Your task to perform on an android device: Open Google Chrome and open the bookmarks view Image 0: 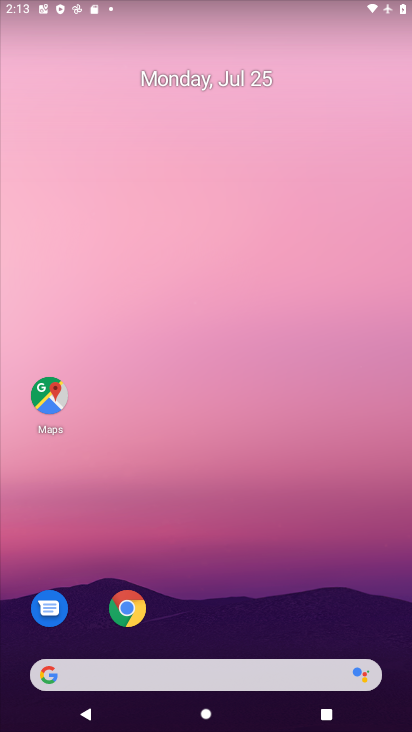
Step 0: drag from (231, 603) to (267, 390)
Your task to perform on an android device: Open Google Chrome and open the bookmarks view Image 1: 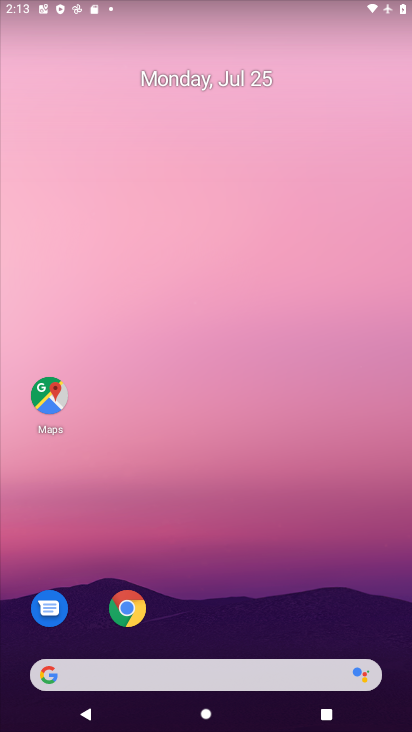
Step 1: drag from (235, 456) to (259, 168)
Your task to perform on an android device: Open Google Chrome and open the bookmarks view Image 2: 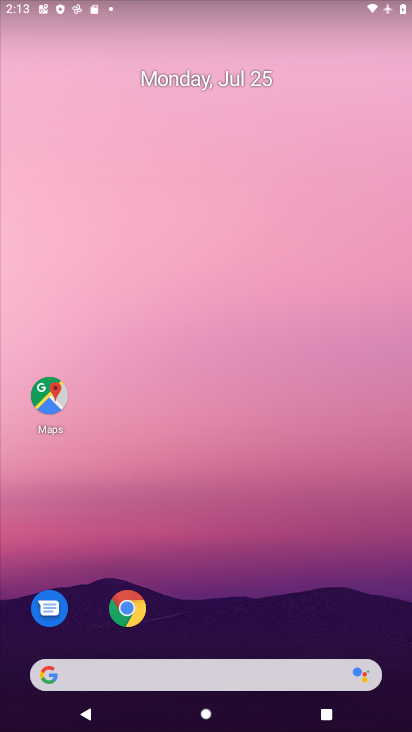
Step 2: drag from (243, 642) to (395, 123)
Your task to perform on an android device: Open Google Chrome and open the bookmarks view Image 3: 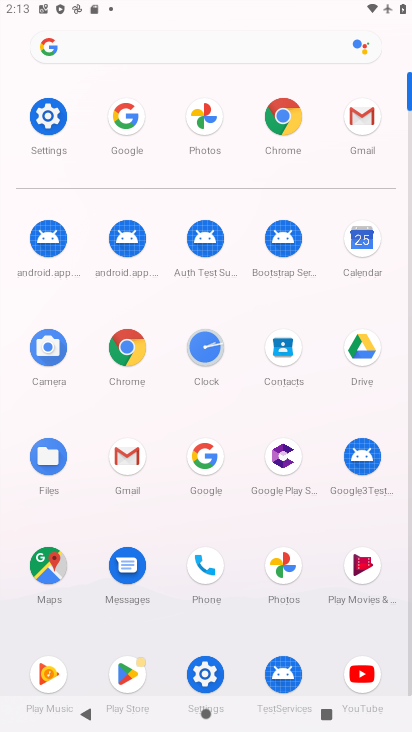
Step 3: click (127, 358)
Your task to perform on an android device: Open Google Chrome and open the bookmarks view Image 4: 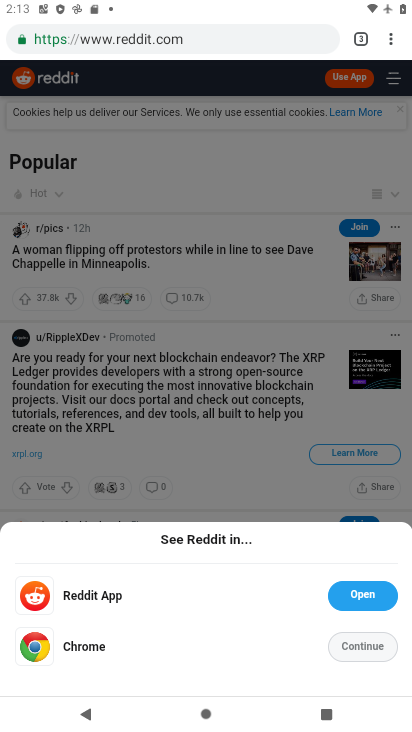
Step 4: click (388, 39)
Your task to perform on an android device: Open Google Chrome and open the bookmarks view Image 5: 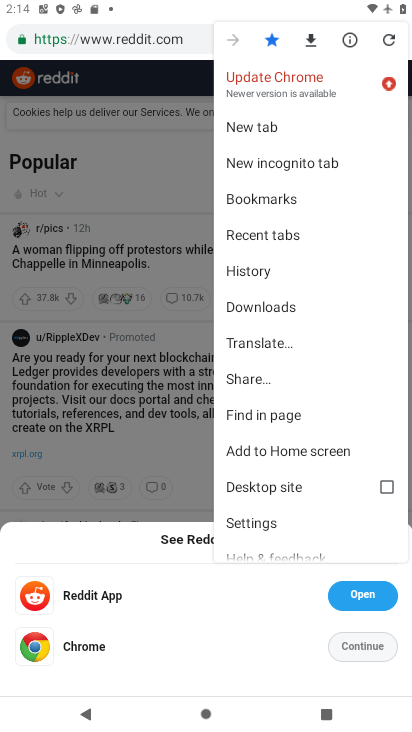
Step 5: click (284, 198)
Your task to perform on an android device: Open Google Chrome and open the bookmarks view Image 6: 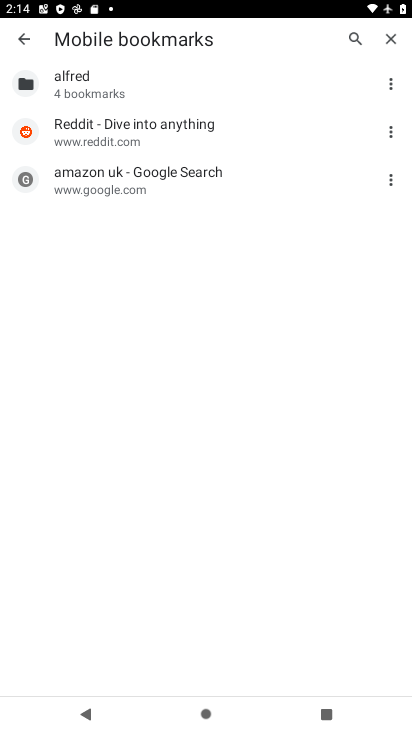
Step 6: click (203, 138)
Your task to perform on an android device: Open Google Chrome and open the bookmarks view Image 7: 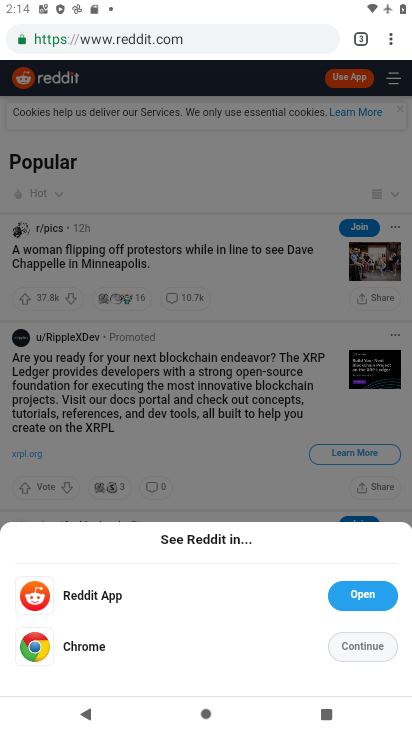
Step 7: click (392, 39)
Your task to perform on an android device: Open Google Chrome and open the bookmarks view Image 8: 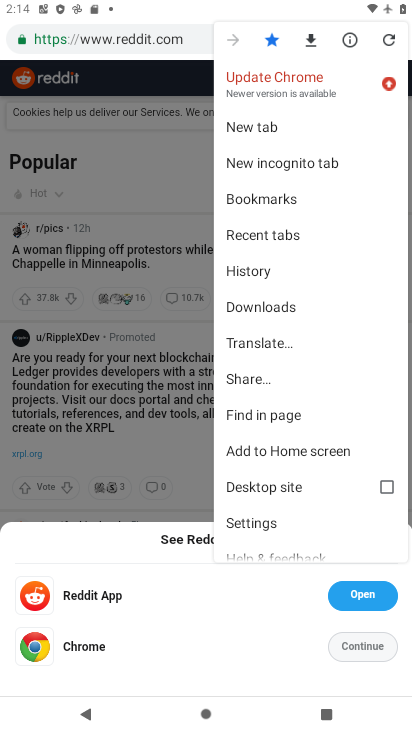
Step 8: click (250, 195)
Your task to perform on an android device: Open Google Chrome and open the bookmarks view Image 9: 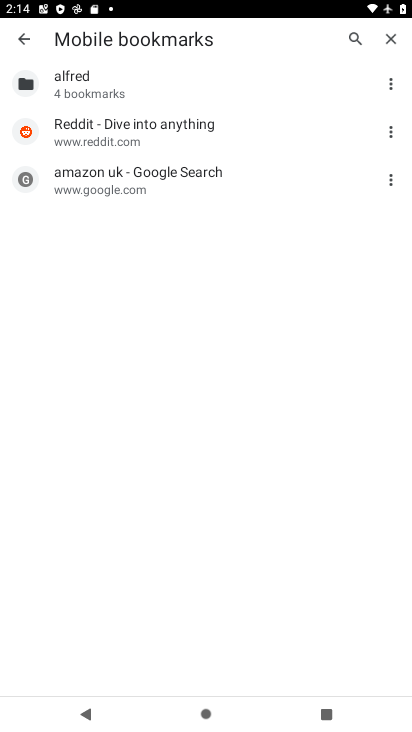
Step 9: click (250, 195)
Your task to perform on an android device: Open Google Chrome and open the bookmarks view Image 10: 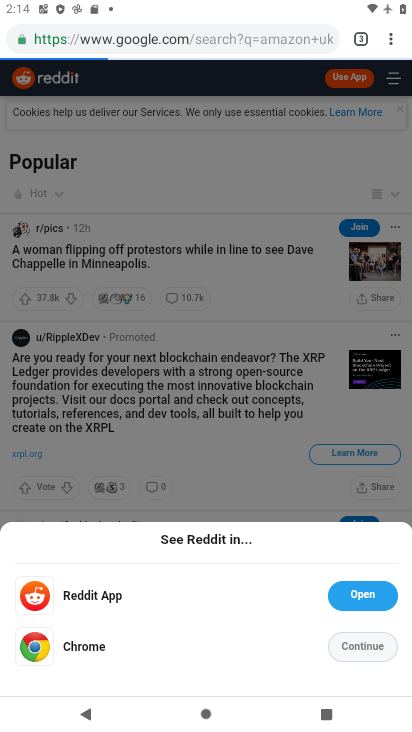
Step 10: task complete